Your task to perform on an android device: star an email in the gmail app Image 0: 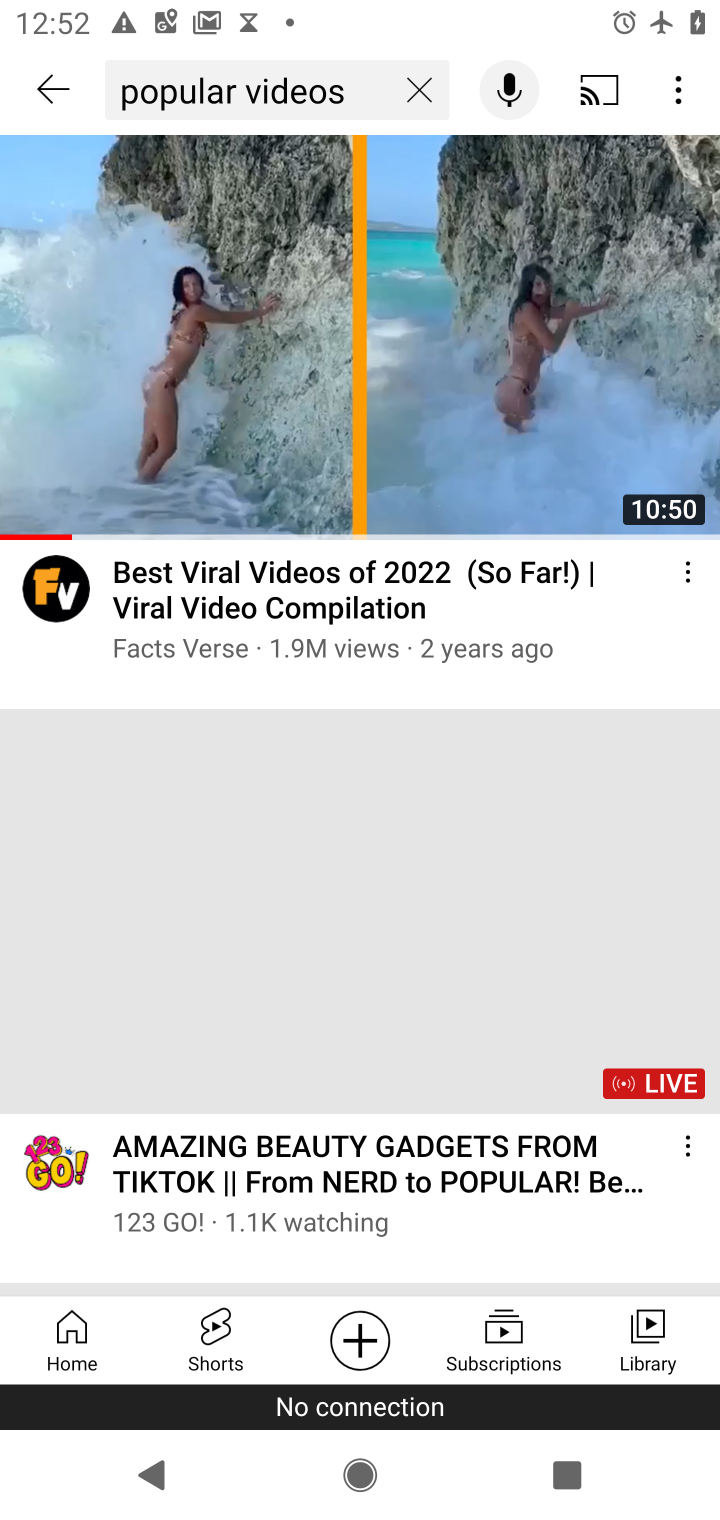
Step 0: press home button
Your task to perform on an android device: star an email in the gmail app Image 1: 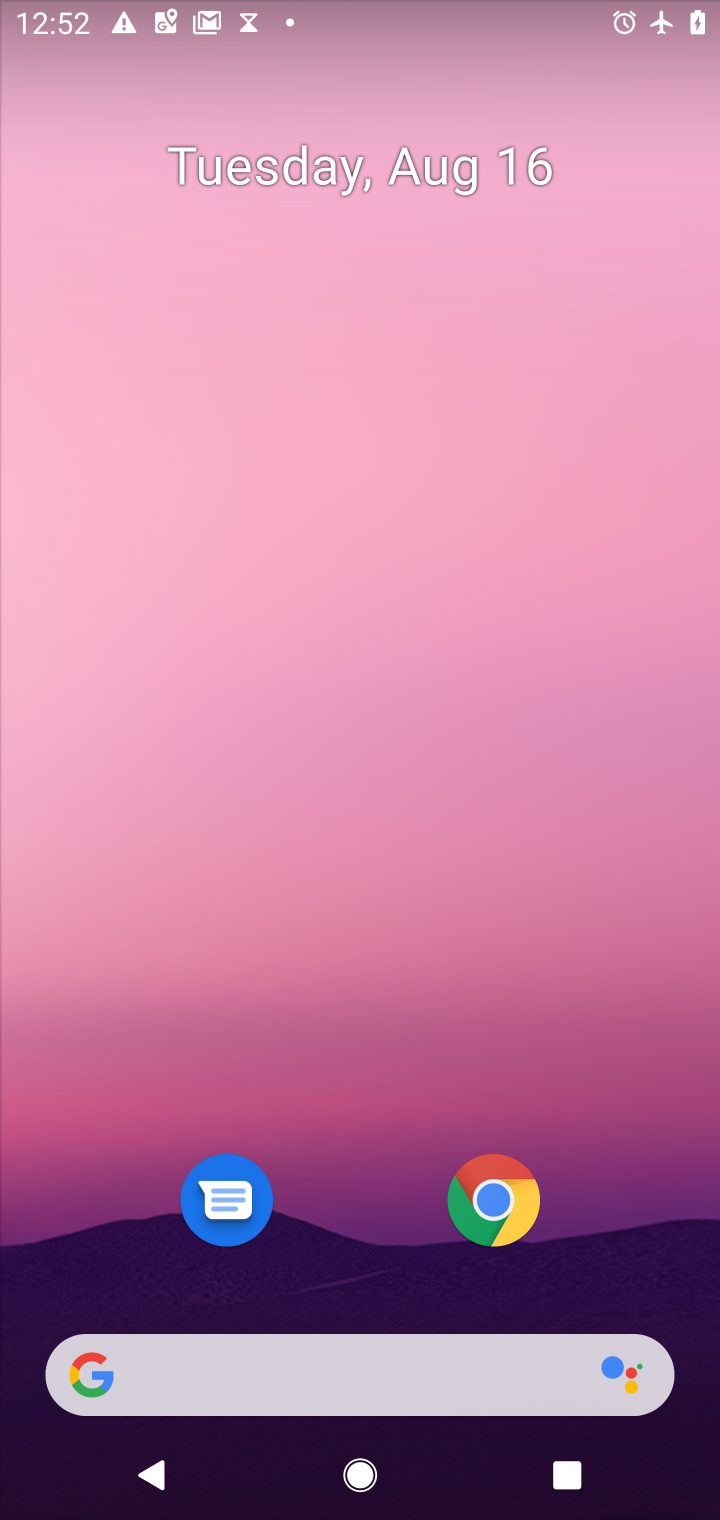
Step 1: drag from (341, 1032) to (310, 338)
Your task to perform on an android device: star an email in the gmail app Image 2: 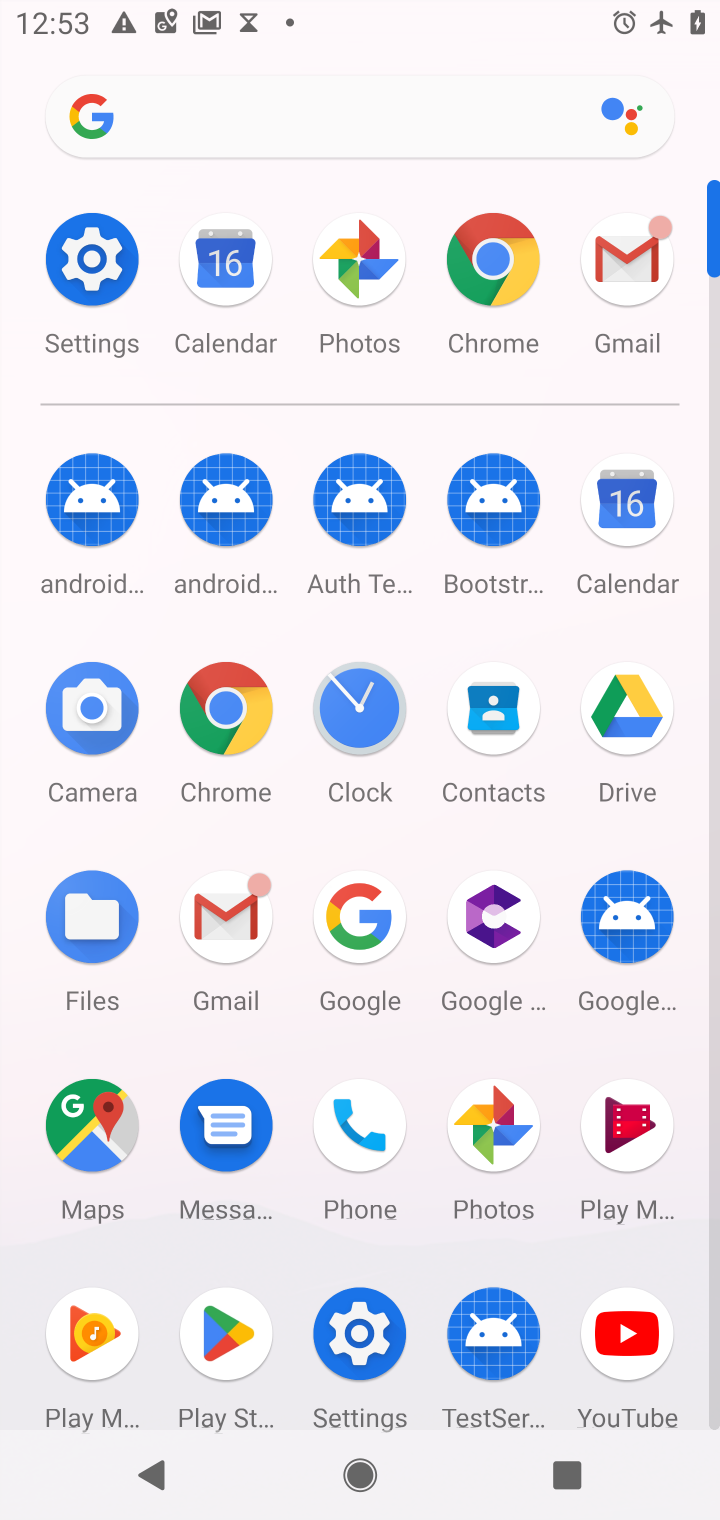
Step 2: click (613, 284)
Your task to perform on an android device: star an email in the gmail app Image 3: 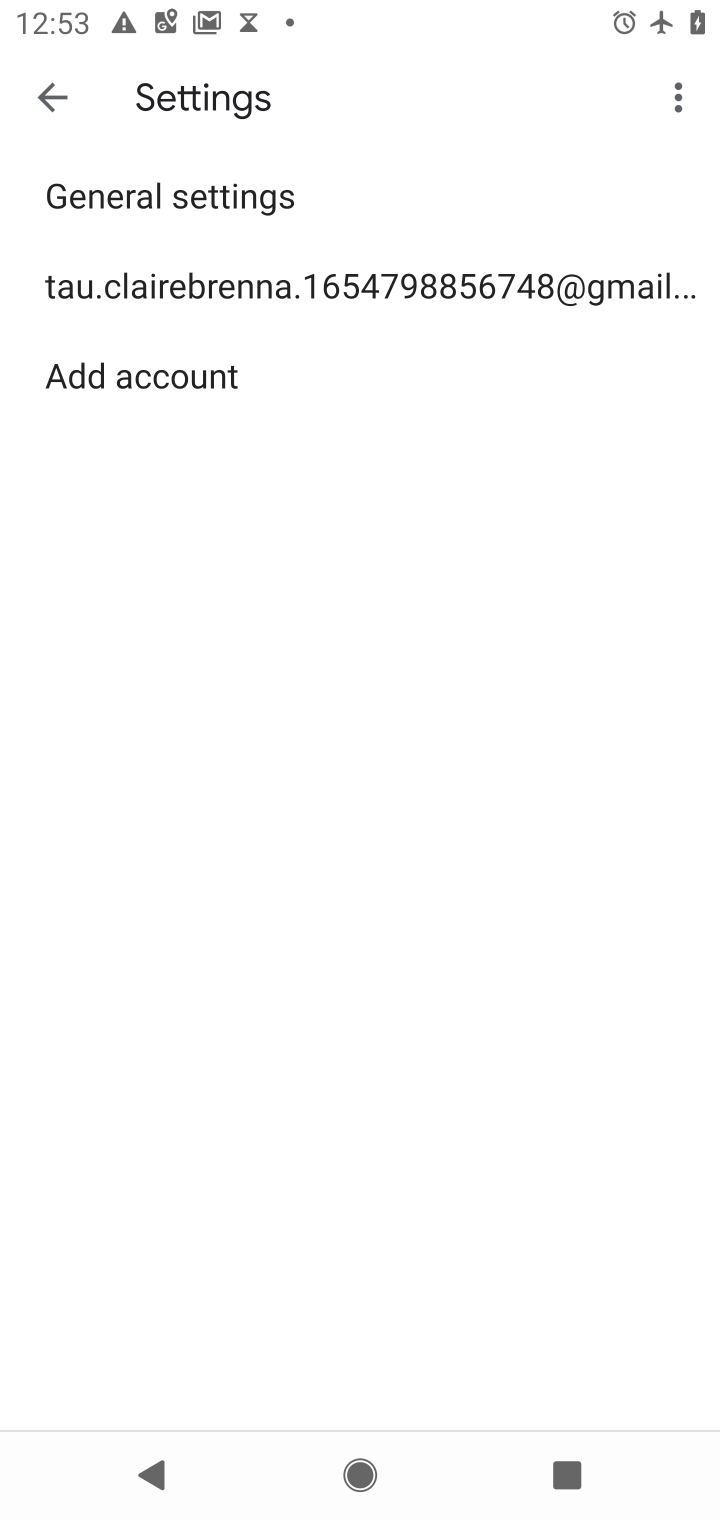
Step 3: click (47, 81)
Your task to perform on an android device: star an email in the gmail app Image 4: 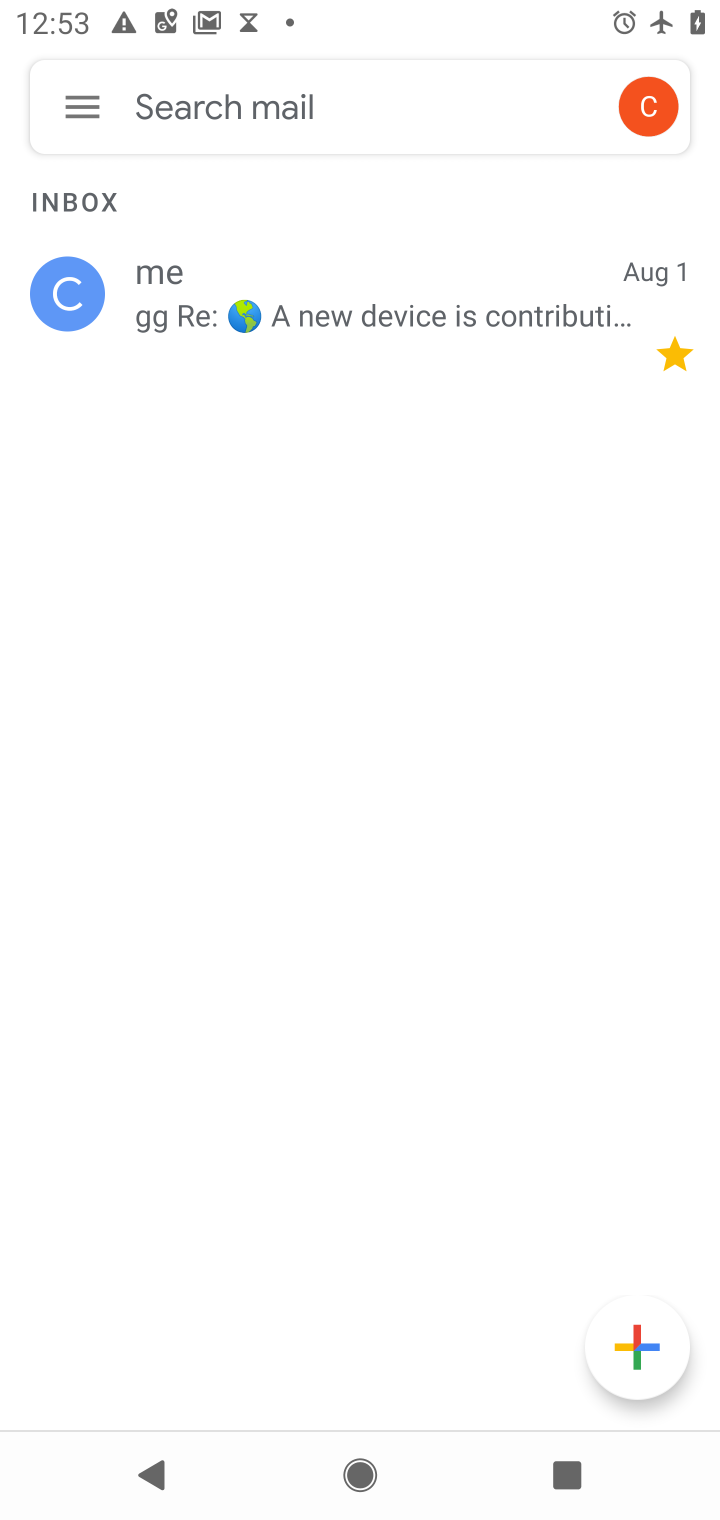
Step 4: click (98, 101)
Your task to perform on an android device: star an email in the gmail app Image 5: 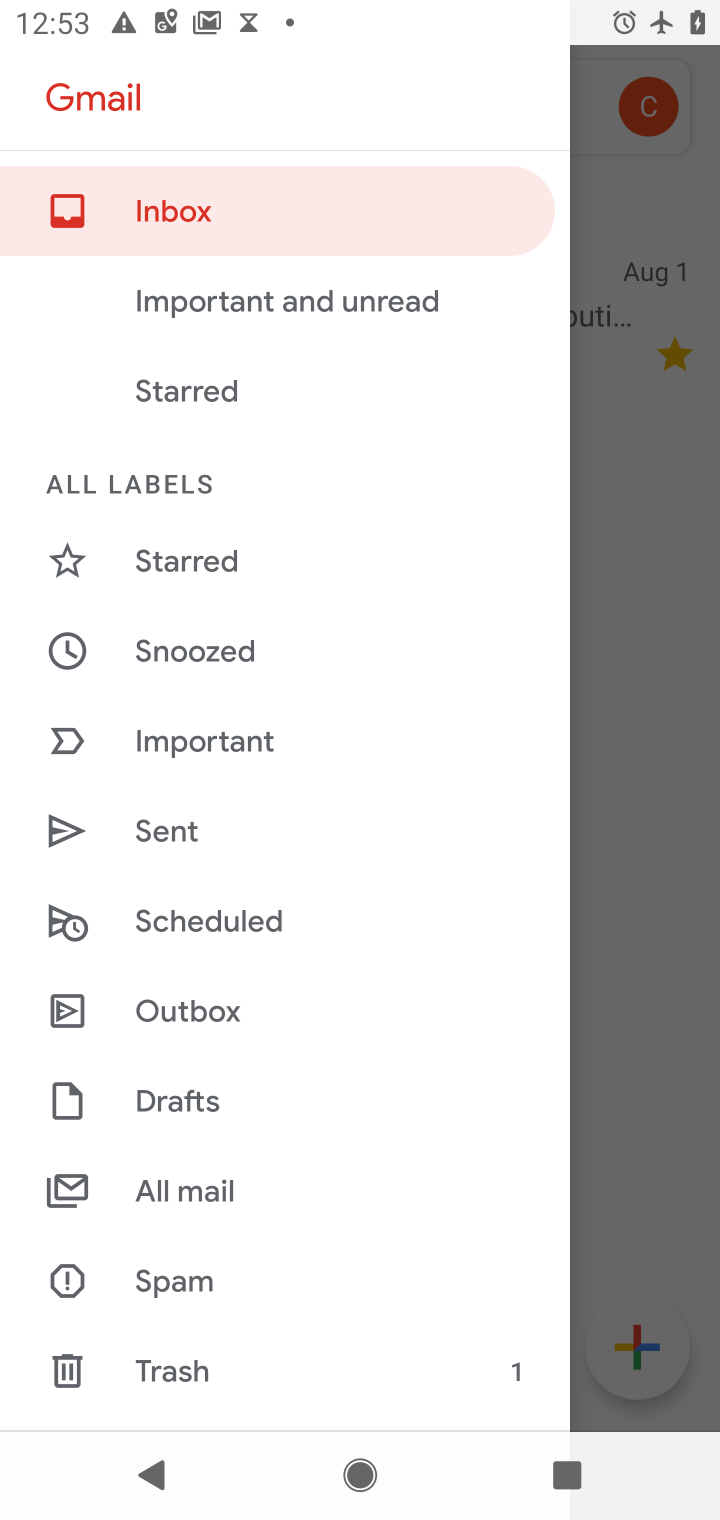
Step 5: click (183, 1180)
Your task to perform on an android device: star an email in the gmail app Image 6: 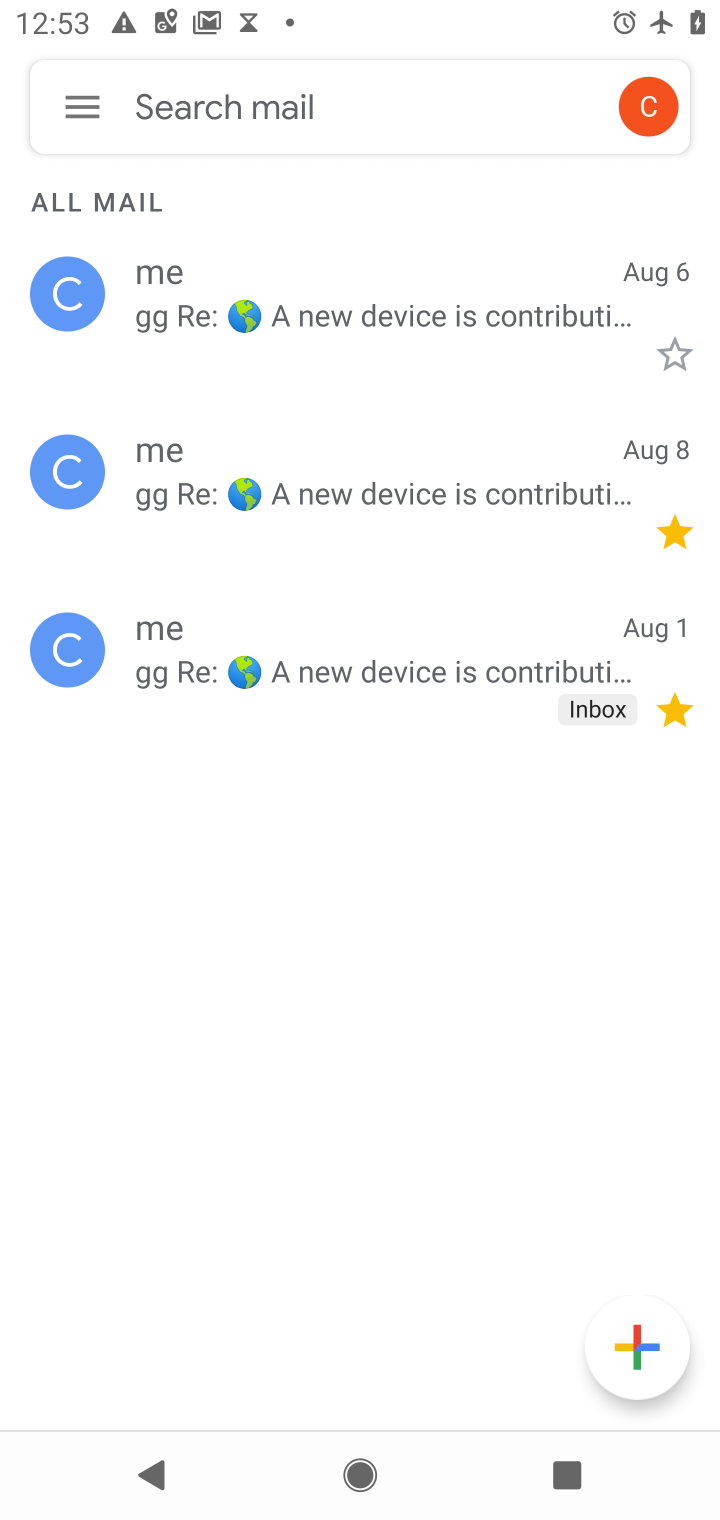
Step 6: click (676, 359)
Your task to perform on an android device: star an email in the gmail app Image 7: 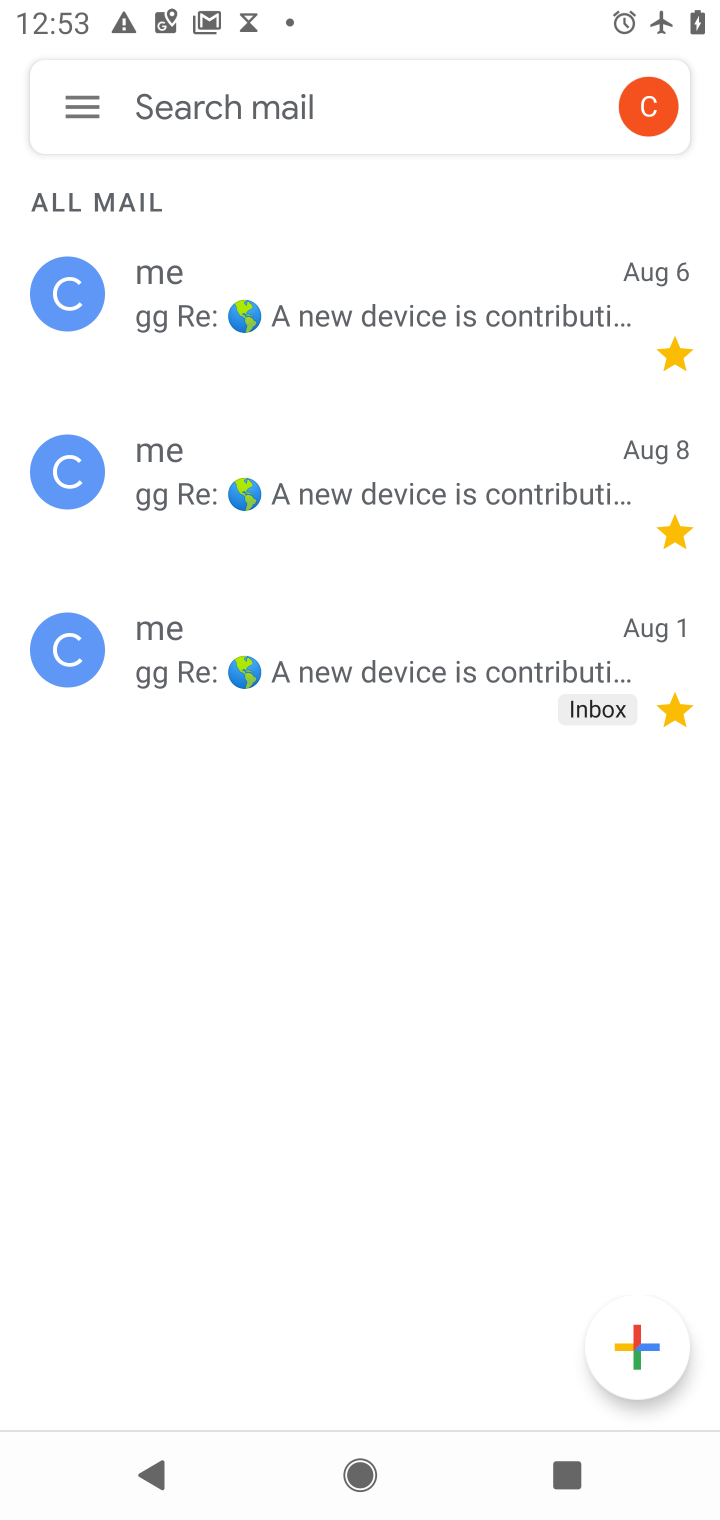
Step 7: task complete